Your task to perform on an android device: Open the map Image 0: 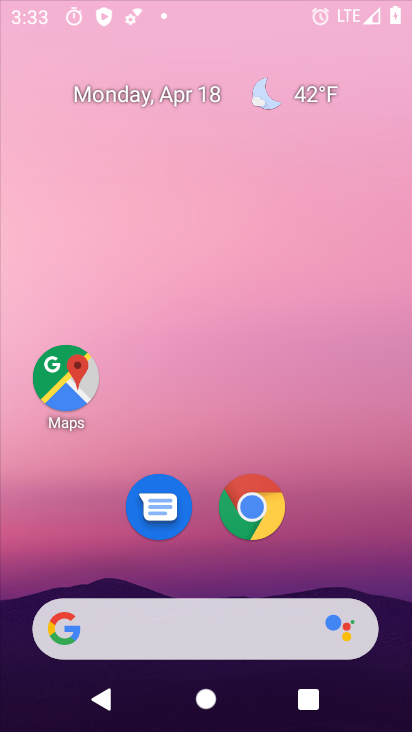
Step 0: click (330, 193)
Your task to perform on an android device: Open the map Image 1: 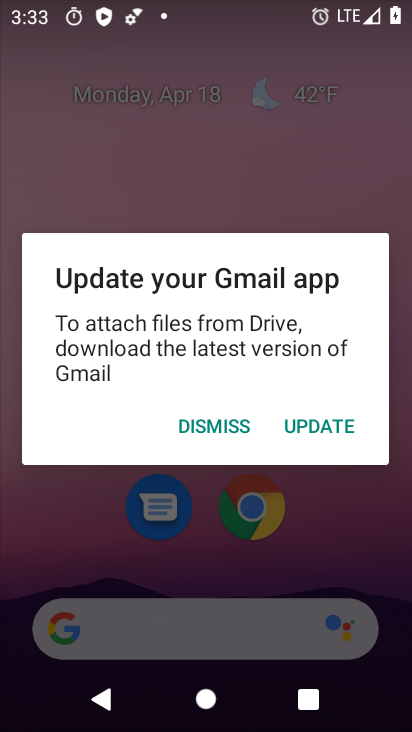
Step 1: press home button
Your task to perform on an android device: Open the map Image 2: 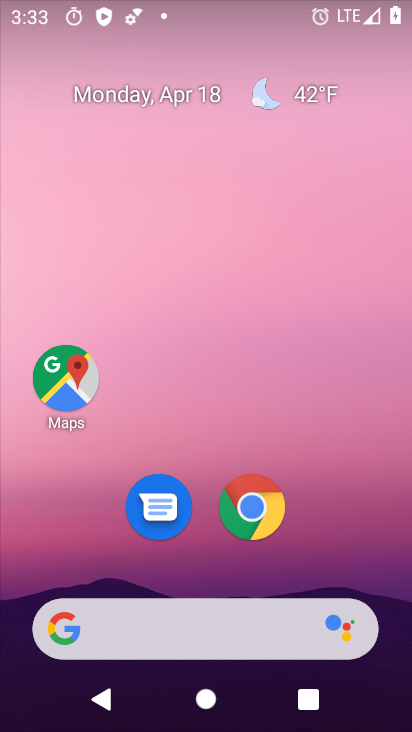
Step 2: drag from (352, 463) to (379, 120)
Your task to perform on an android device: Open the map Image 3: 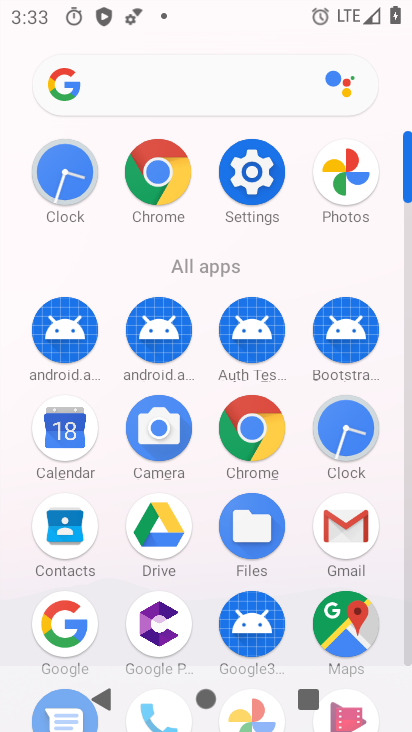
Step 3: click (338, 621)
Your task to perform on an android device: Open the map Image 4: 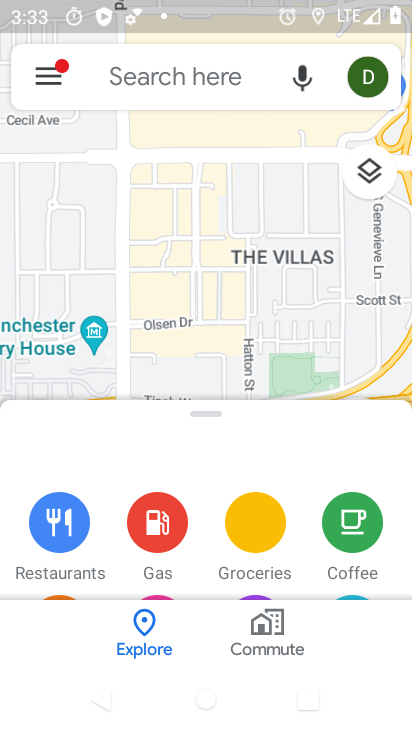
Step 4: task complete